Your task to perform on an android device: delete the emails in spam in the gmail app Image 0: 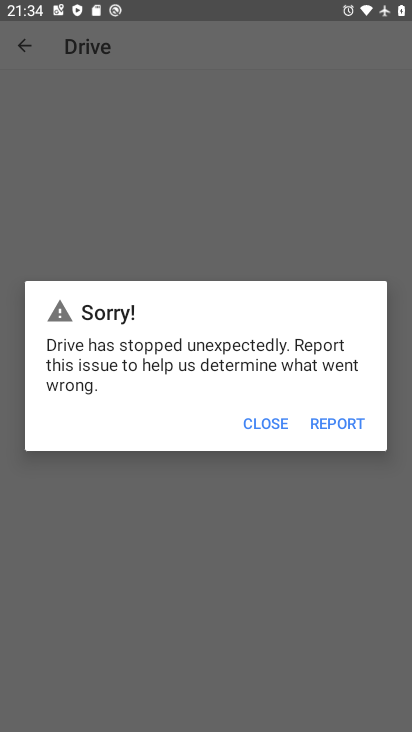
Step 0: press home button
Your task to perform on an android device: delete the emails in spam in the gmail app Image 1: 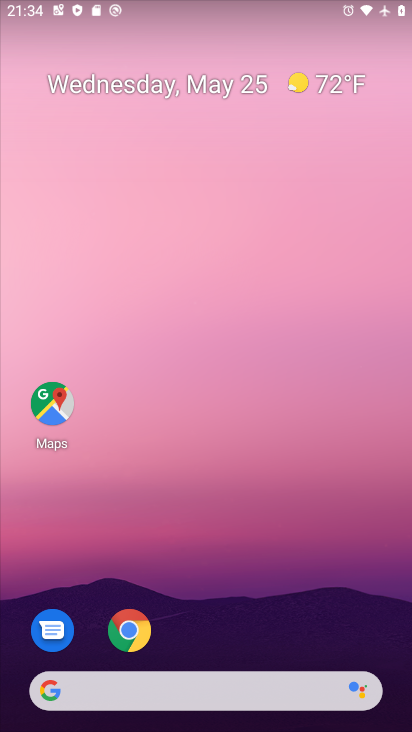
Step 1: drag from (224, 629) to (230, 258)
Your task to perform on an android device: delete the emails in spam in the gmail app Image 2: 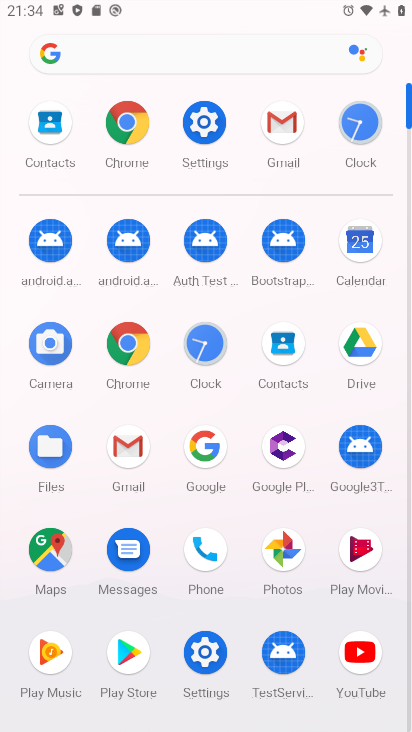
Step 2: click (280, 144)
Your task to perform on an android device: delete the emails in spam in the gmail app Image 3: 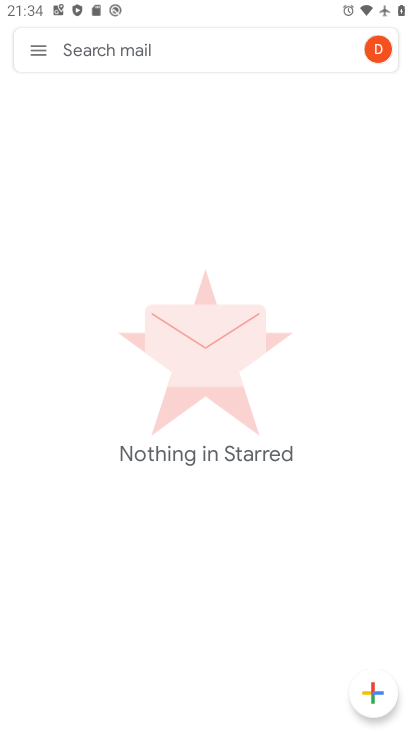
Step 3: task complete